Your task to perform on an android device: Do I have any events this weekend? Image 0: 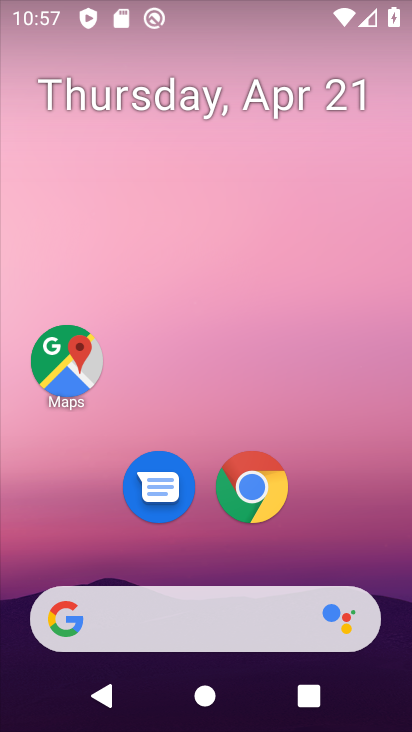
Step 0: drag from (197, 504) to (211, 81)
Your task to perform on an android device: Do I have any events this weekend? Image 1: 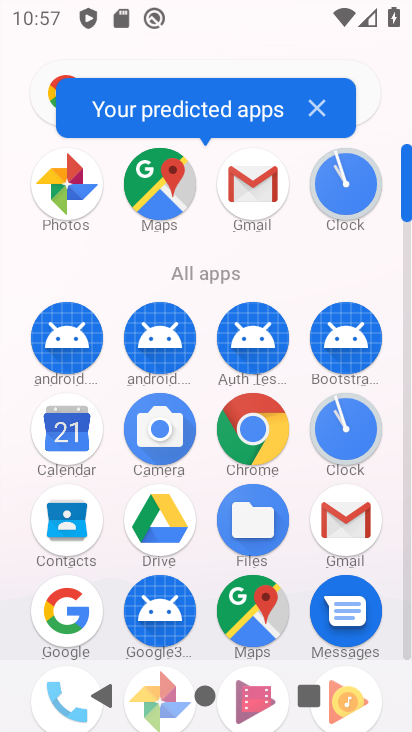
Step 1: click (77, 431)
Your task to perform on an android device: Do I have any events this weekend? Image 2: 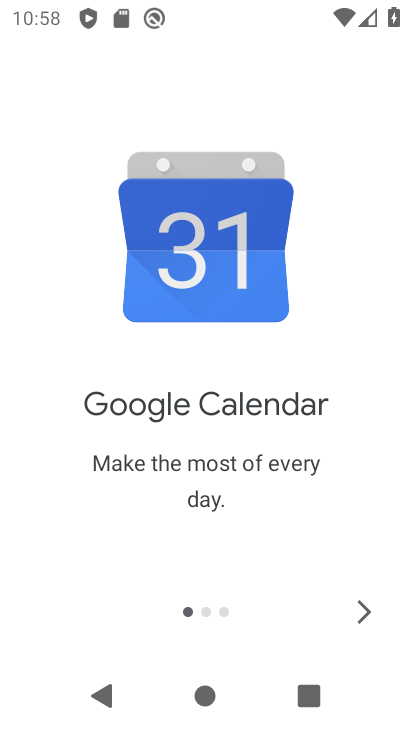
Step 2: click (369, 619)
Your task to perform on an android device: Do I have any events this weekend? Image 3: 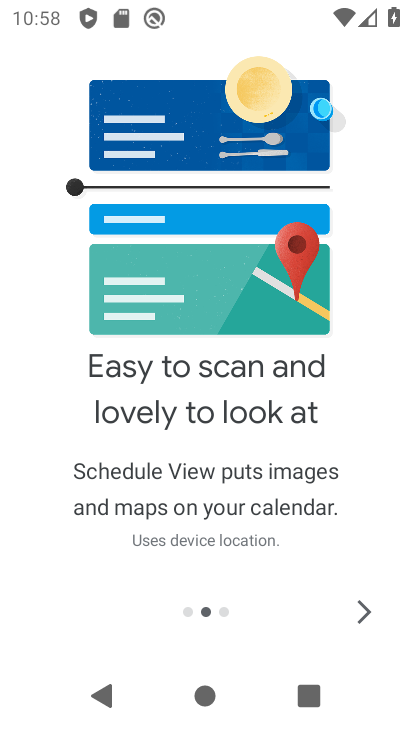
Step 3: click (369, 619)
Your task to perform on an android device: Do I have any events this weekend? Image 4: 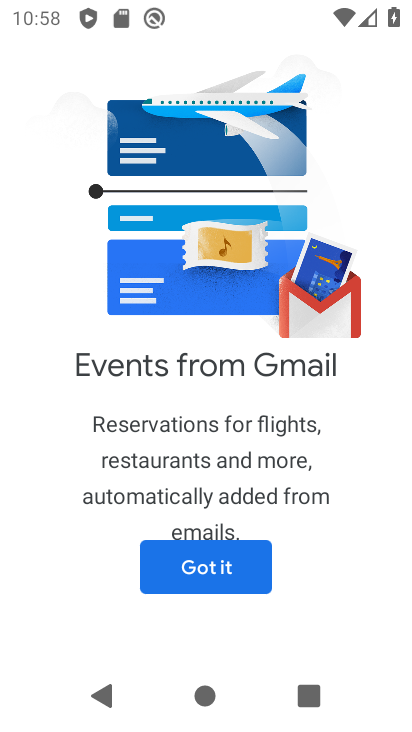
Step 4: click (179, 569)
Your task to perform on an android device: Do I have any events this weekend? Image 5: 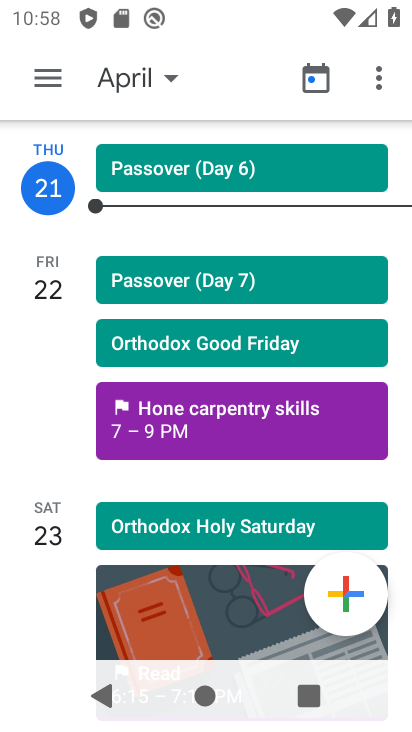
Step 5: click (51, 79)
Your task to perform on an android device: Do I have any events this weekend? Image 6: 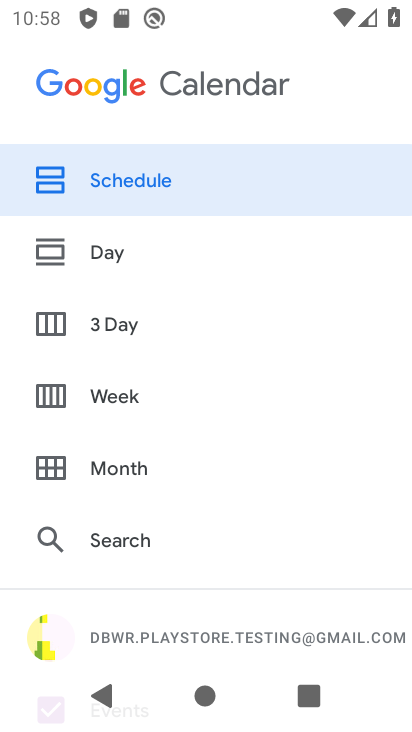
Step 6: click (139, 399)
Your task to perform on an android device: Do I have any events this weekend? Image 7: 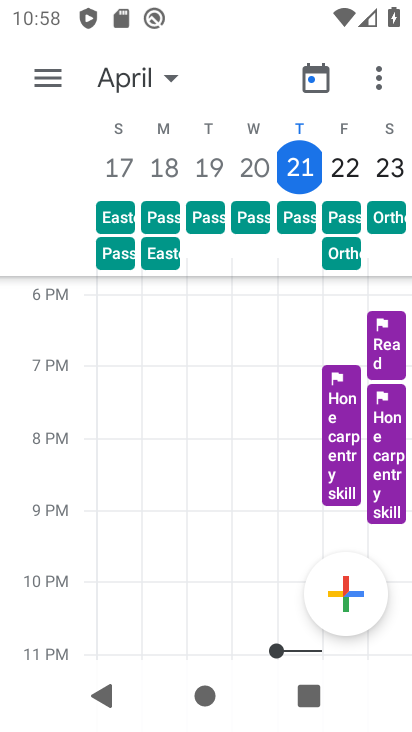
Step 7: click (36, 75)
Your task to perform on an android device: Do I have any events this weekend? Image 8: 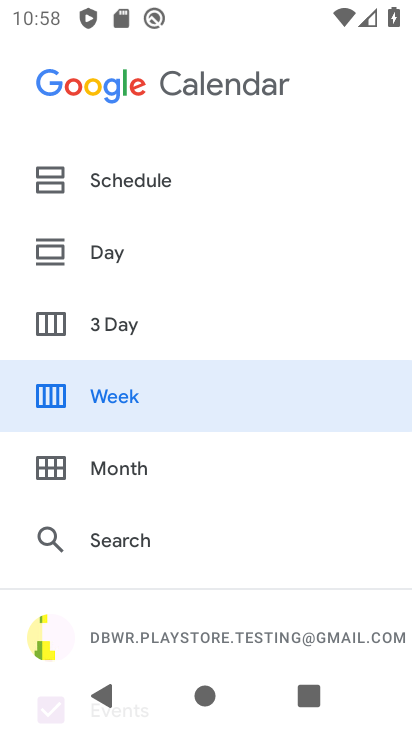
Step 8: drag from (124, 567) to (151, 172)
Your task to perform on an android device: Do I have any events this weekend? Image 9: 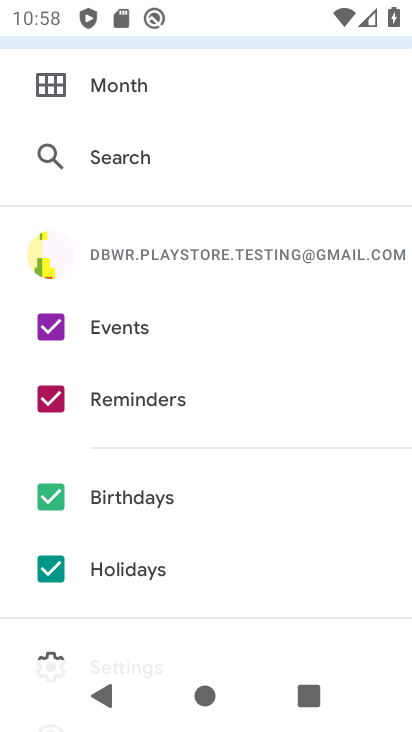
Step 9: click (50, 574)
Your task to perform on an android device: Do I have any events this weekend? Image 10: 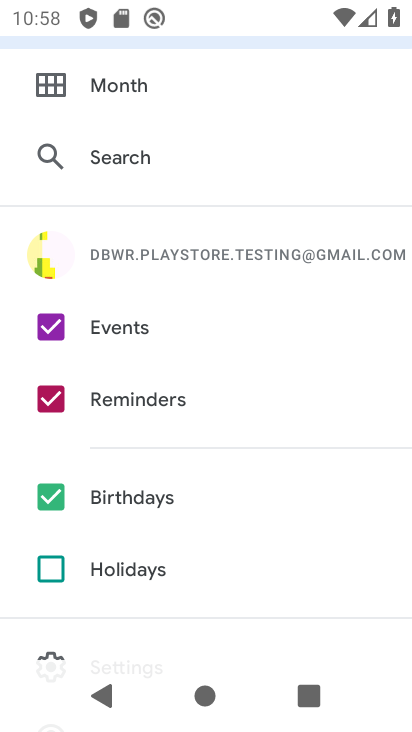
Step 10: click (51, 500)
Your task to perform on an android device: Do I have any events this weekend? Image 11: 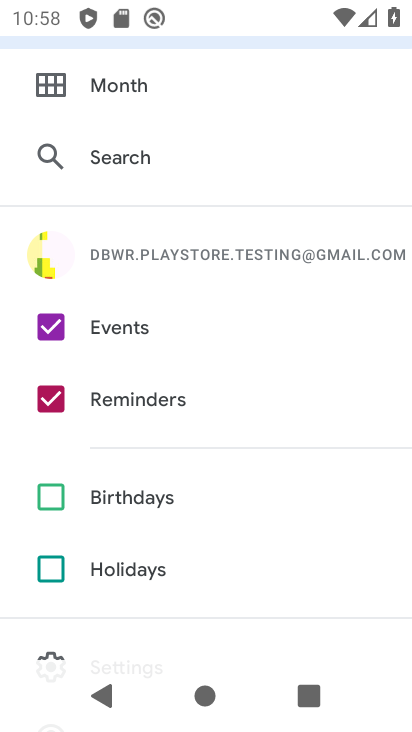
Step 11: click (52, 404)
Your task to perform on an android device: Do I have any events this weekend? Image 12: 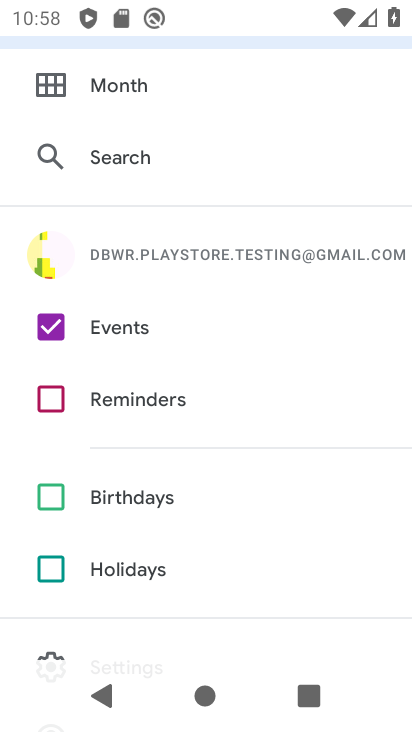
Step 12: task complete